Your task to perform on an android device: create a new album in the google photos Image 0: 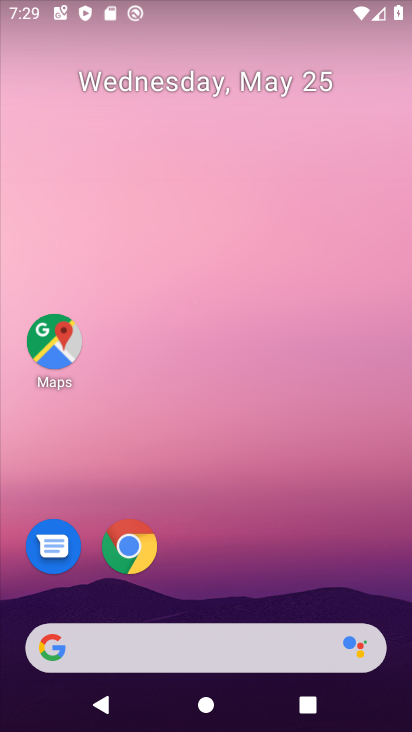
Step 0: drag from (214, 643) to (315, 236)
Your task to perform on an android device: create a new album in the google photos Image 1: 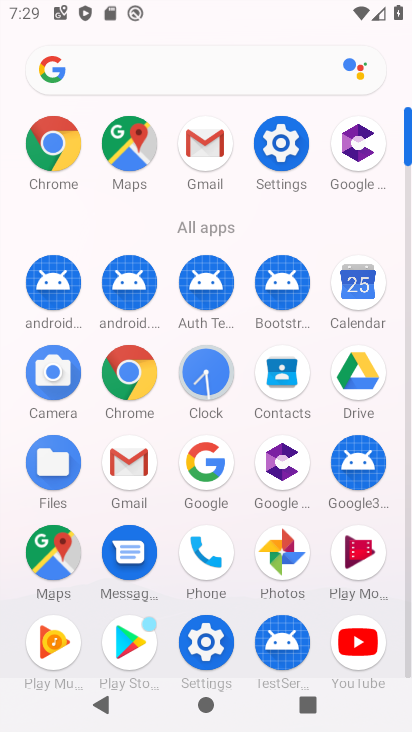
Step 1: click (281, 560)
Your task to perform on an android device: create a new album in the google photos Image 2: 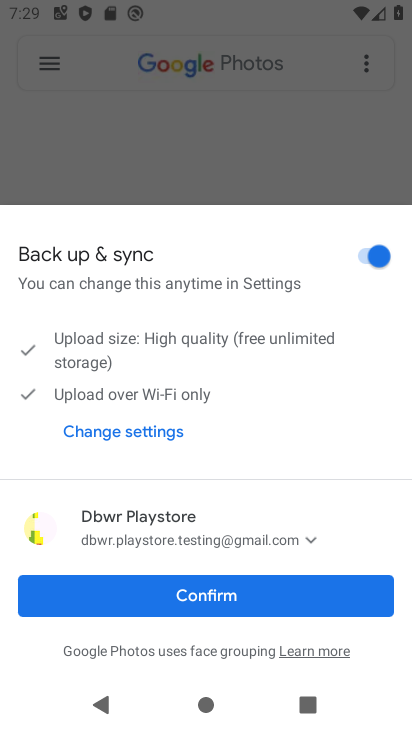
Step 2: click (235, 599)
Your task to perform on an android device: create a new album in the google photos Image 3: 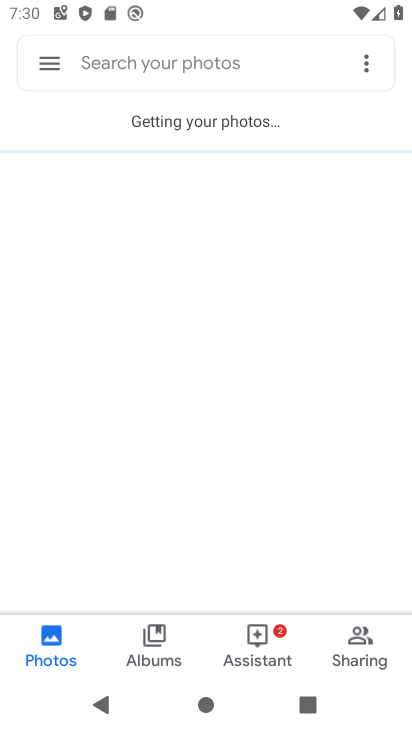
Step 3: drag from (236, 144) to (256, 354)
Your task to perform on an android device: create a new album in the google photos Image 4: 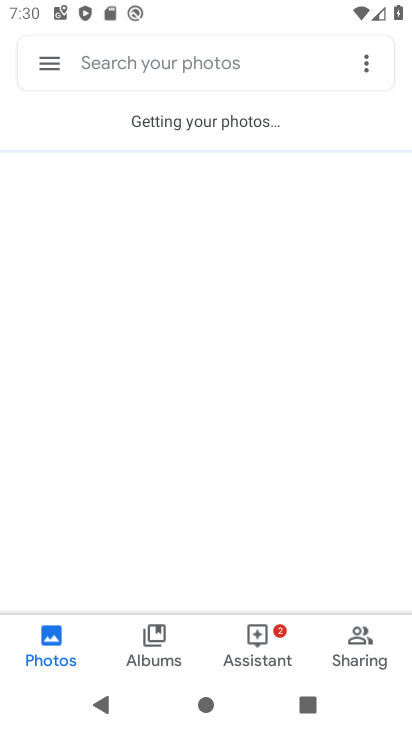
Step 4: drag from (225, 108) to (233, 543)
Your task to perform on an android device: create a new album in the google photos Image 5: 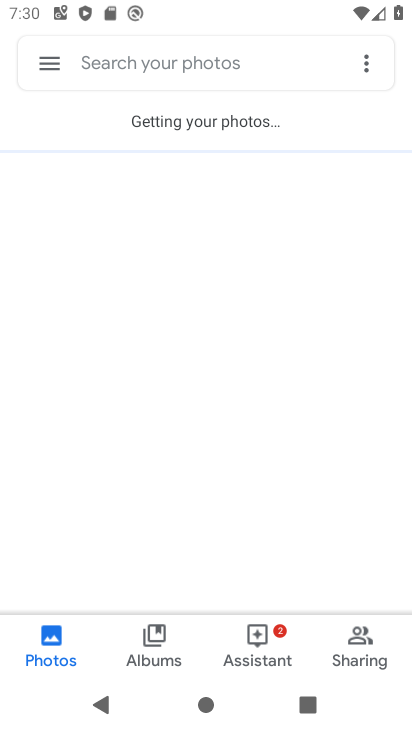
Step 5: click (170, 650)
Your task to perform on an android device: create a new album in the google photos Image 6: 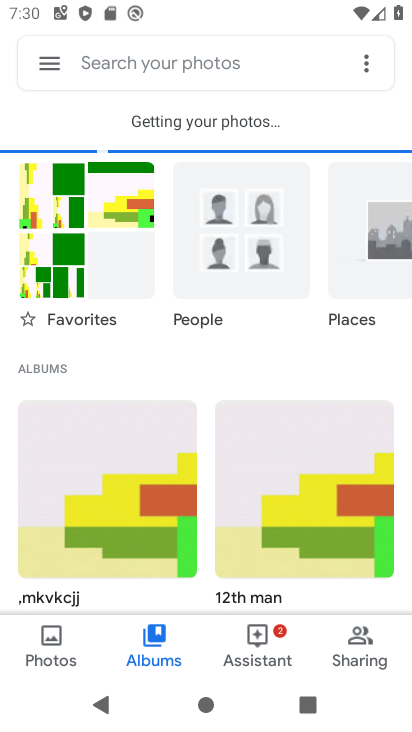
Step 6: click (364, 62)
Your task to perform on an android device: create a new album in the google photos Image 7: 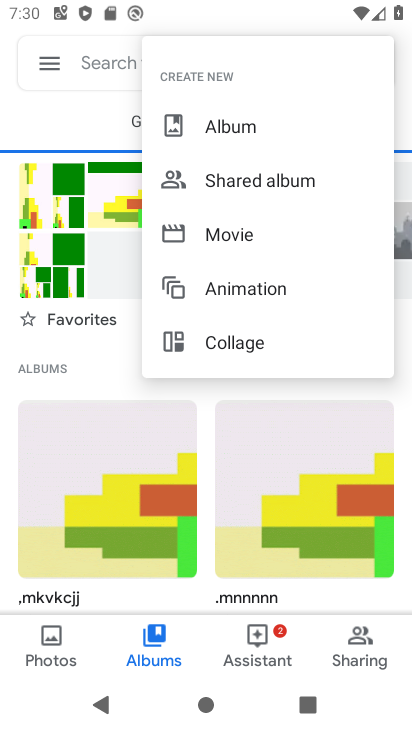
Step 7: click (257, 121)
Your task to perform on an android device: create a new album in the google photos Image 8: 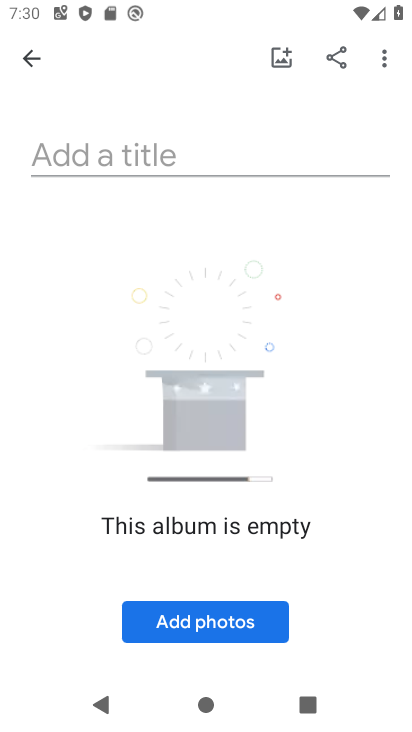
Step 8: click (224, 624)
Your task to perform on an android device: create a new album in the google photos Image 9: 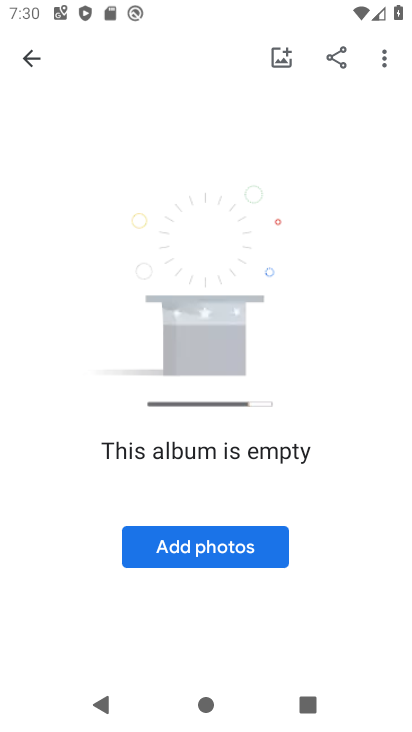
Step 9: click (225, 544)
Your task to perform on an android device: create a new album in the google photos Image 10: 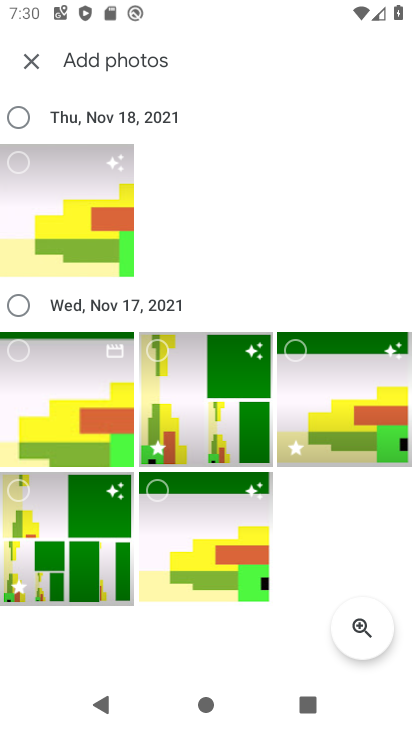
Step 10: click (72, 386)
Your task to perform on an android device: create a new album in the google photos Image 11: 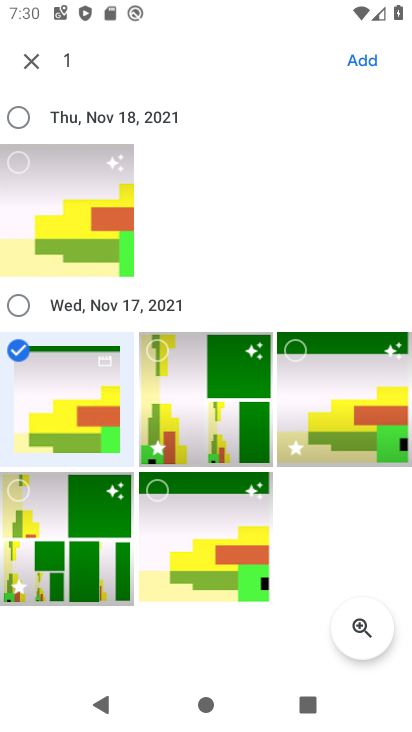
Step 11: click (167, 379)
Your task to perform on an android device: create a new album in the google photos Image 12: 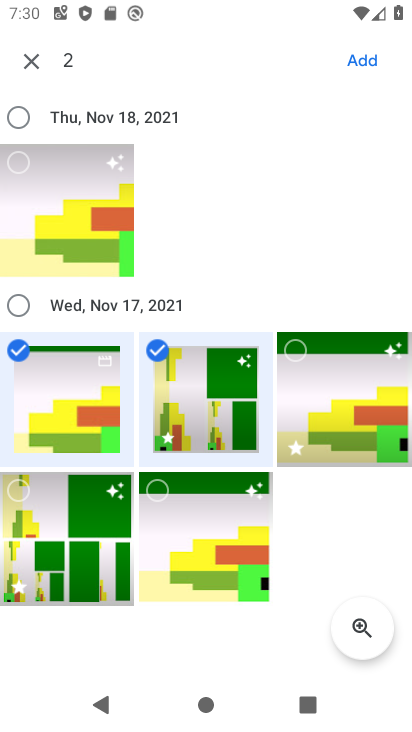
Step 12: click (272, 367)
Your task to perform on an android device: create a new album in the google photos Image 13: 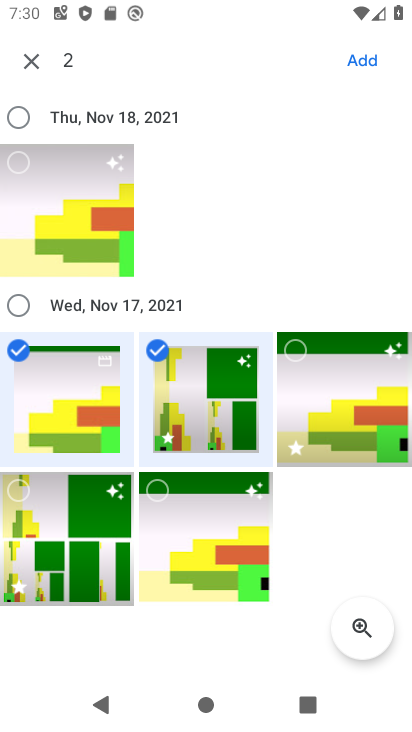
Step 13: click (371, 56)
Your task to perform on an android device: create a new album in the google photos Image 14: 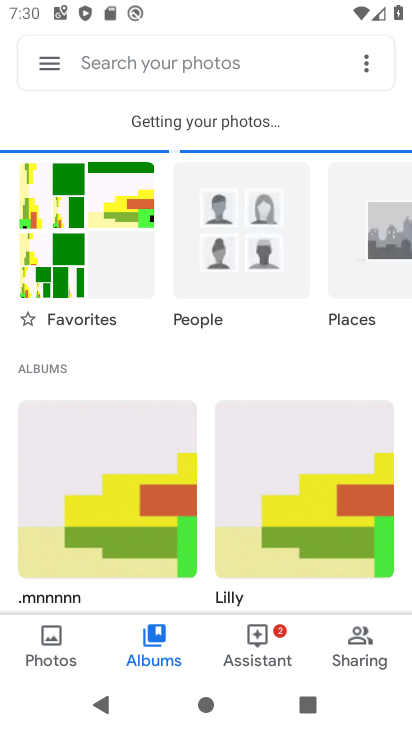
Step 14: task complete